Your task to perform on an android device: Search for sushi restaurants on Maps Image 0: 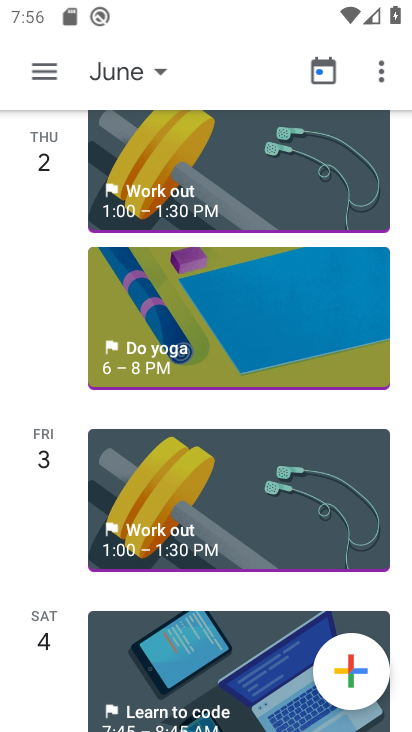
Step 0: press home button
Your task to perform on an android device: Search for sushi restaurants on Maps Image 1: 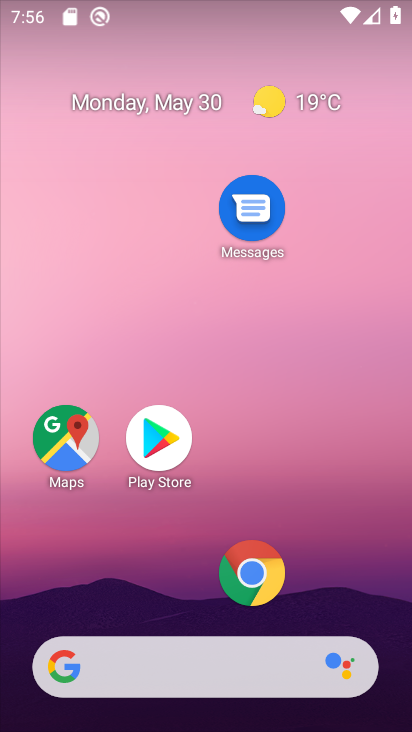
Step 1: drag from (181, 593) to (221, 287)
Your task to perform on an android device: Search for sushi restaurants on Maps Image 2: 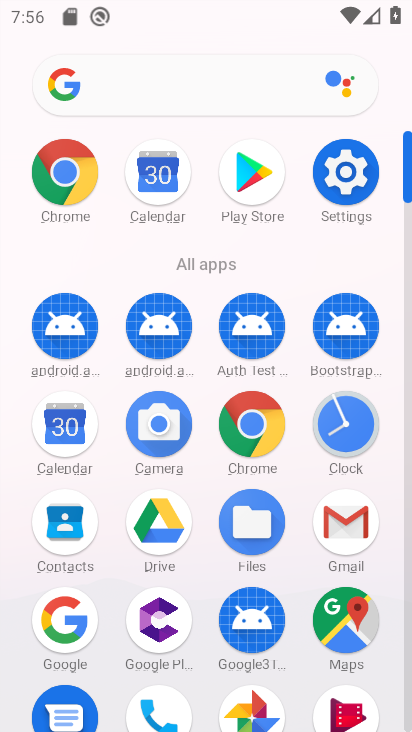
Step 2: click (361, 637)
Your task to perform on an android device: Search for sushi restaurants on Maps Image 3: 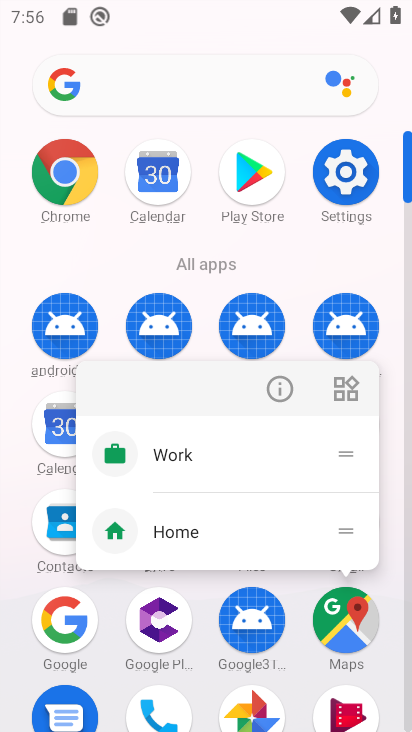
Step 3: click (361, 637)
Your task to perform on an android device: Search for sushi restaurants on Maps Image 4: 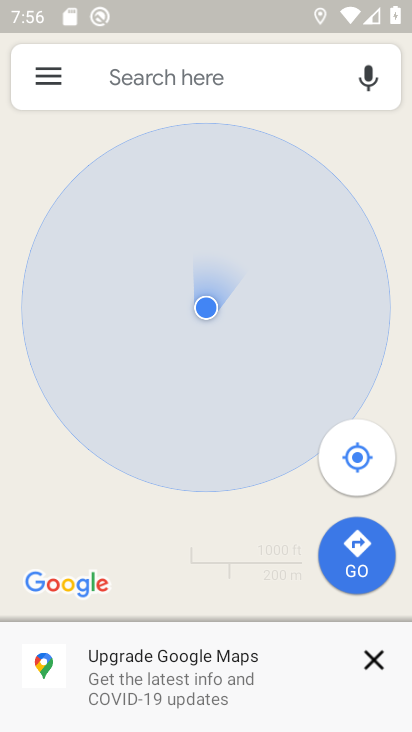
Step 4: click (204, 72)
Your task to perform on an android device: Search for sushi restaurants on Maps Image 5: 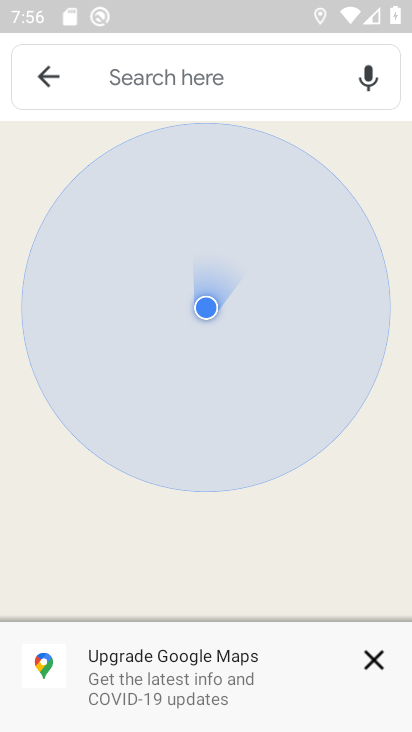
Step 5: click (205, 73)
Your task to perform on an android device: Search for sushi restaurants on Maps Image 6: 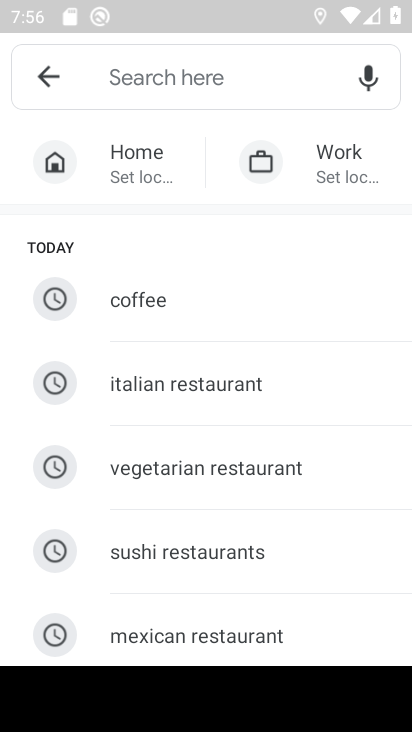
Step 6: type "Sushi restaurants"
Your task to perform on an android device: Search for sushi restaurants on Maps Image 7: 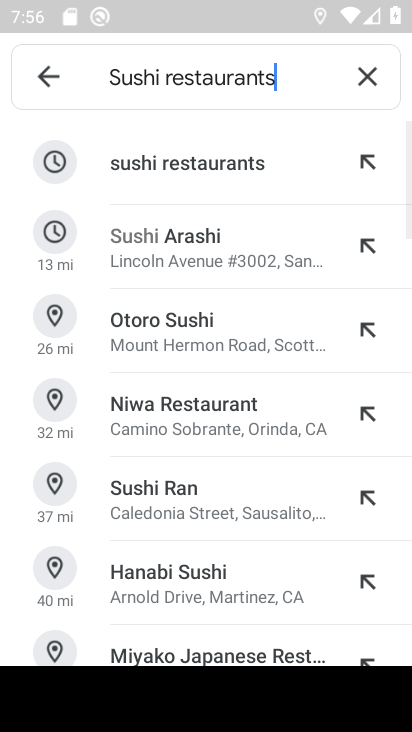
Step 7: click (215, 165)
Your task to perform on an android device: Search for sushi restaurants on Maps Image 8: 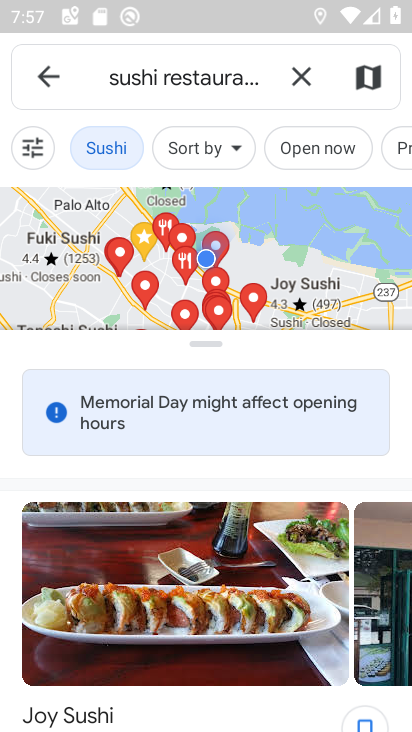
Step 8: task complete